Your task to perform on an android device: Open settings Image 0: 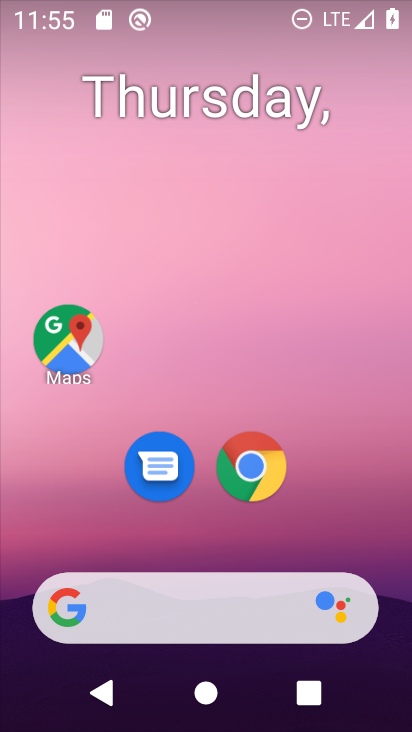
Step 0: drag from (196, 598) to (282, 69)
Your task to perform on an android device: Open settings Image 1: 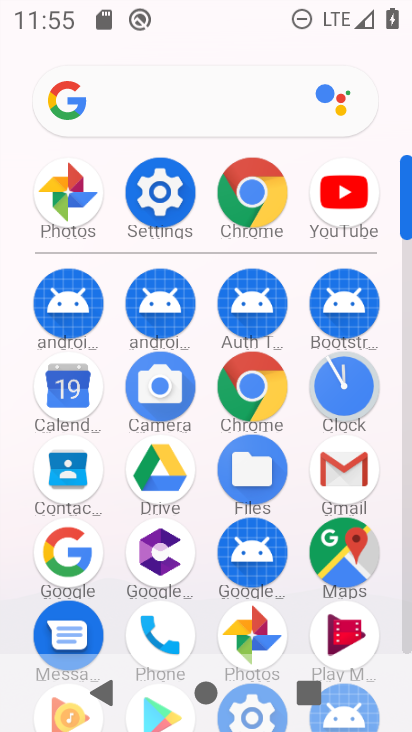
Step 1: click (160, 193)
Your task to perform on an android device: Open settings Image 2: 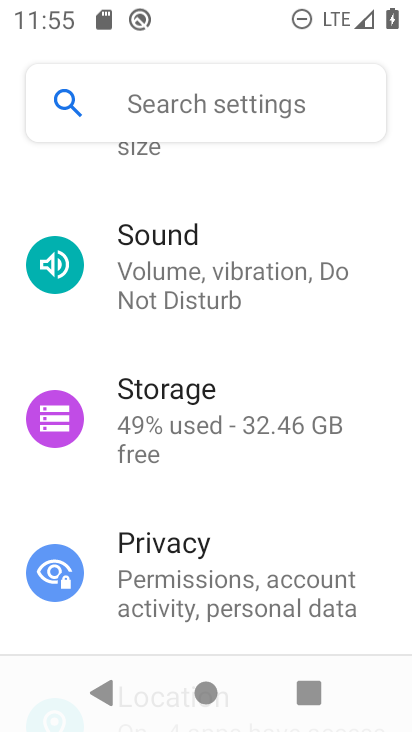
Step 2: task complete